Your task to perform on an android device: Go to Wikipedia Image 0: 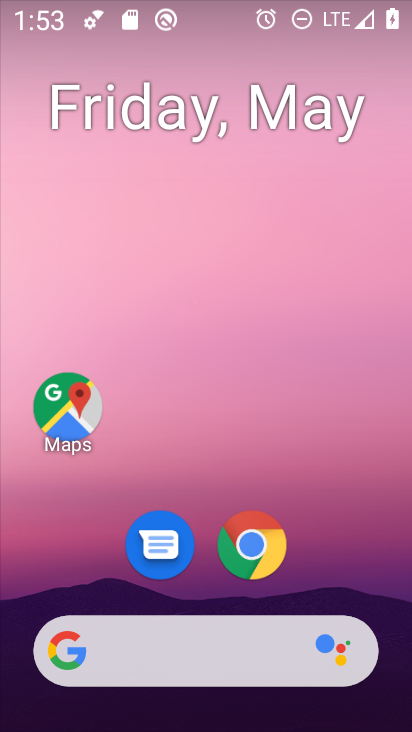
Step 0: click (263, 542)
Your task to perform on an android device: Go to Wikipedia Image 1: 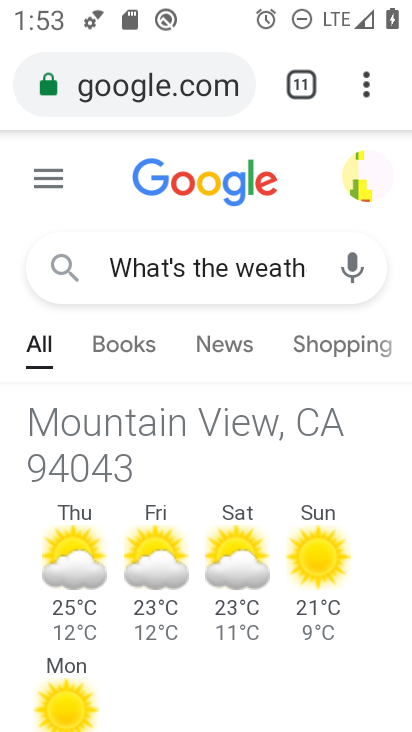
Step 1: click (369, 76)
Your task to perform on an android device: Go to Wikipedia Image 2: 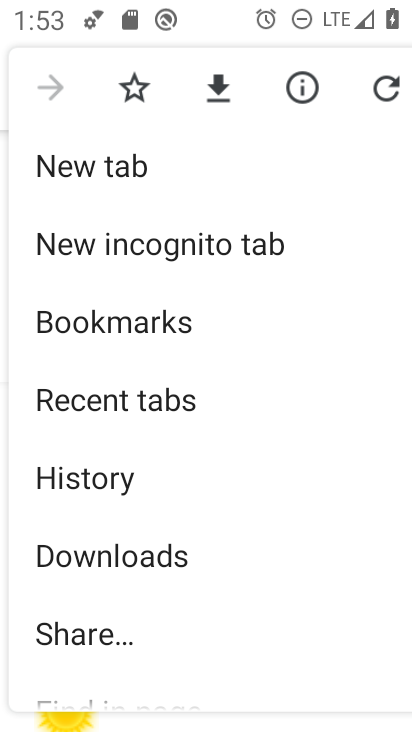
Step 2: click (64, 169)
Your task to perform on an android device: Go to Wikipedia Image 3: 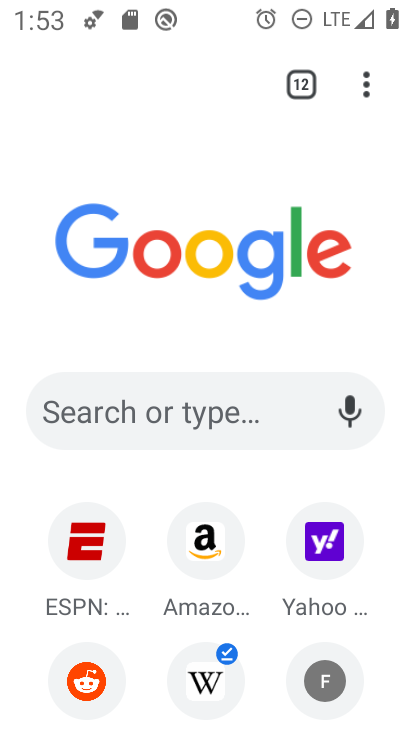
Step 3: click (185, 678)
Your task to perform on an android device: Go to Wikipedia Image 4: 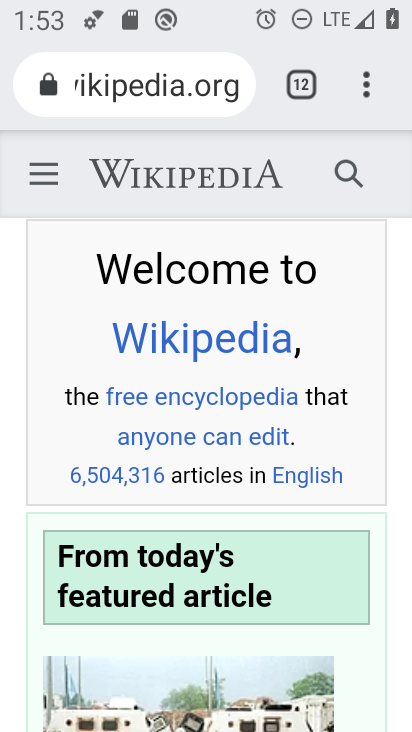
Step 4: task complete